Your task to perform on an android device: empty trash in google photos Image 0: 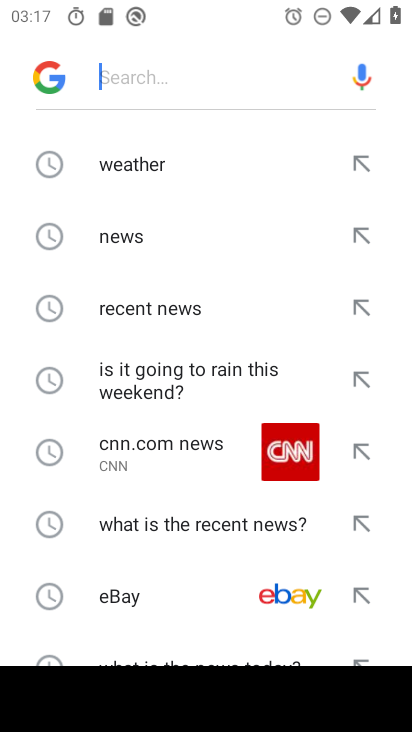
Step 0: press home button
Your task to perform on an android device: empty trash in google photos Image 1: 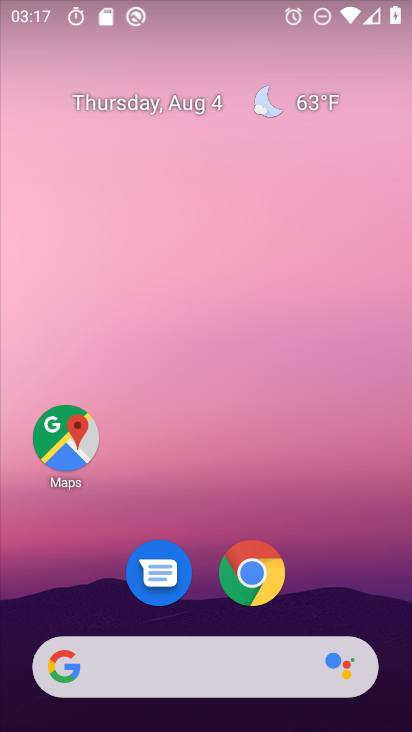
Step 1: drag from (342, 557) to (268, 74)
Your task to perform on an android device: empty trash in google photos Image 2: 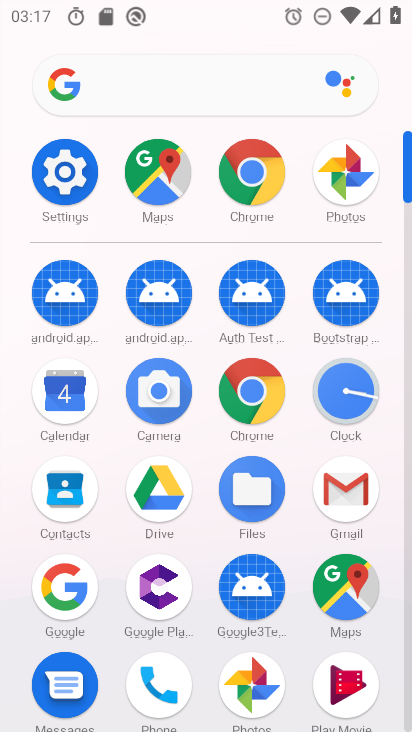
Step 2: click (259, 696)
Your task to perform on an android device: empty trash in google photos Image 3: 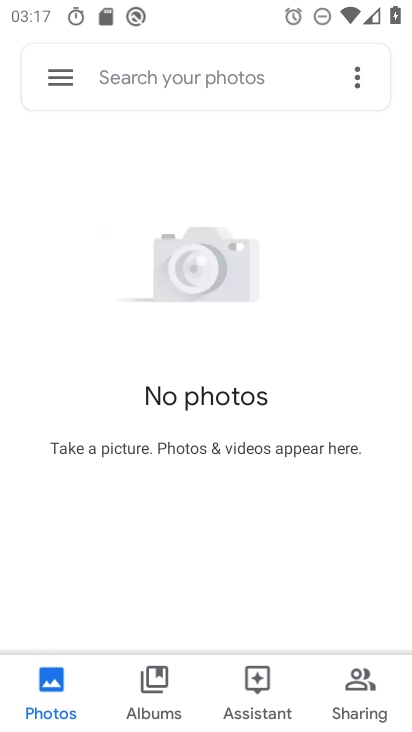
Step 3: click (49, 72)
Your task to perform on an android device: empty trash in google photos Image 4: 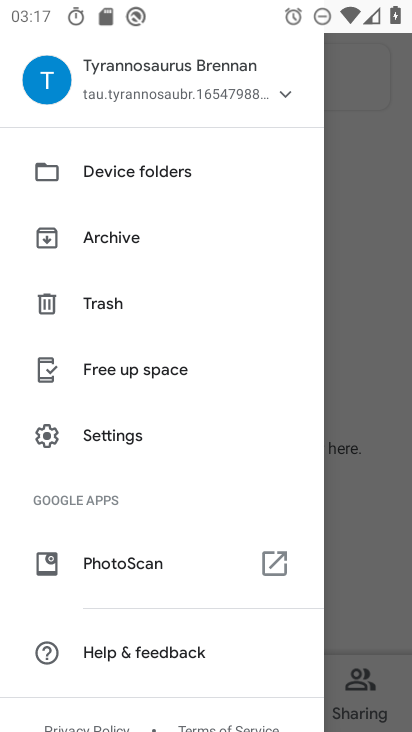
Step 4: click (95, 309)
Your task to perform on an android device: empty trash in google photos Image 5: 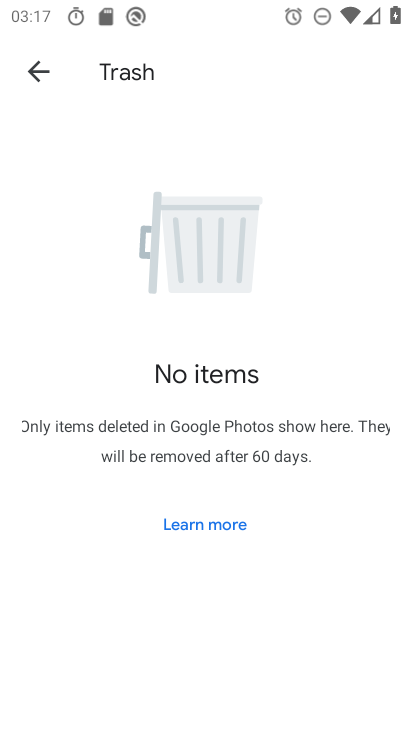
Step 5: task complete